Your task to perform on an android device: Do I have any events tomorrow? Image 0: 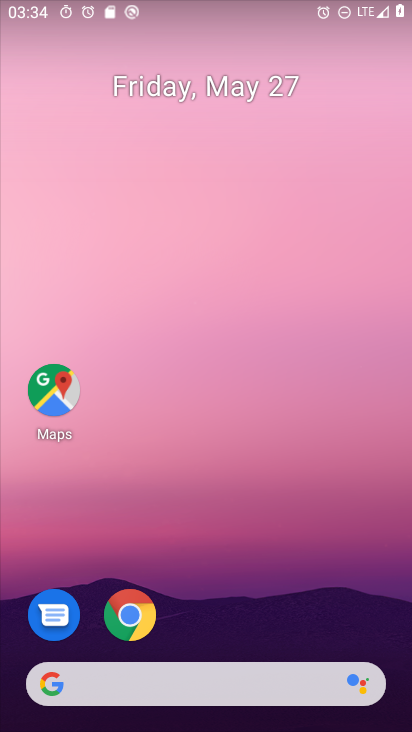
Step 0: drag from (364, 614) to (373, 350)
Your task to perform on an android device: Do I have any events tomorrow? Image 1: 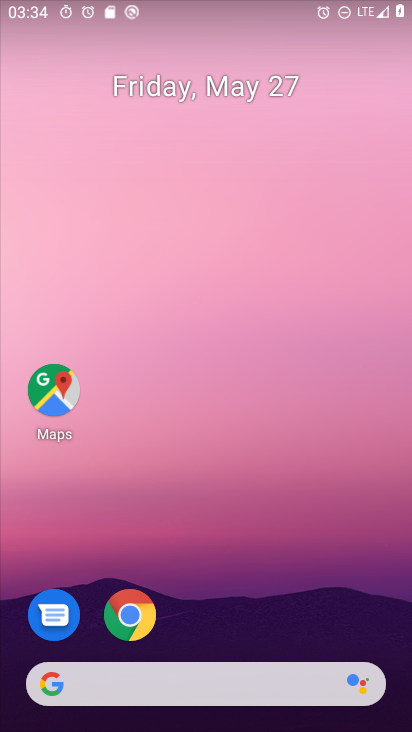
Step 1: drag from (354, 632) to (364, 329)
Your task to perform on an android device: Do I have any events tomorrow? Image 2: 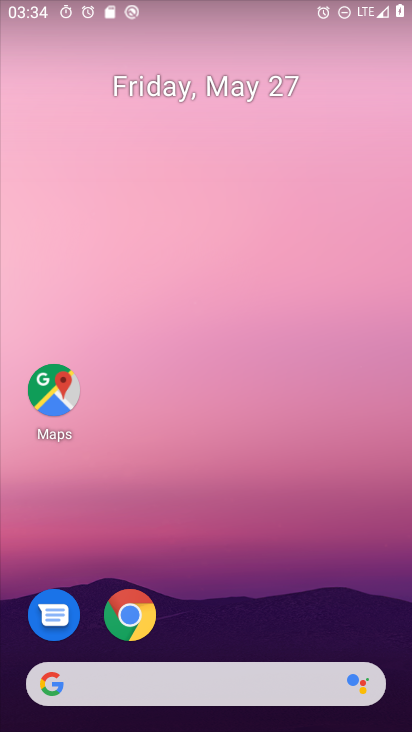
Step 2: drag from (356, 613) to (376, 223)
Your task to perform on an android device: Do I have any events tomorrow? Image 3: 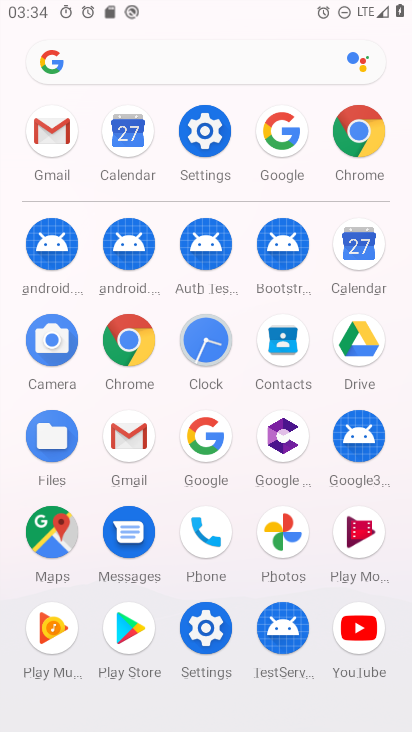
Step 3: click (359, 250)
Your task to perform on an android device: Do I have any events tomorrow? Image 4: 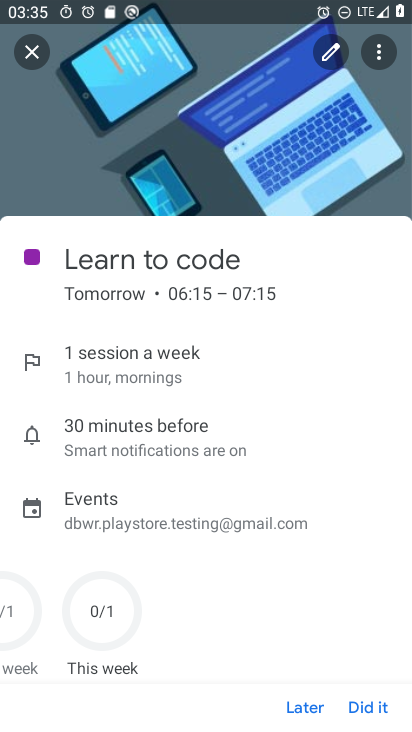
Step 4: task complete